Your task to perform on an android device: Open settings Image 0: 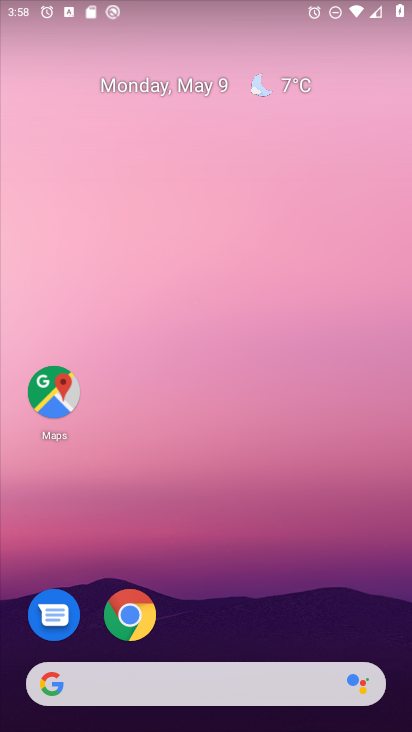
Step 0: drag from (393, 637) to (308, 185)
Your task to perform on an android device: Open settings Image 1: 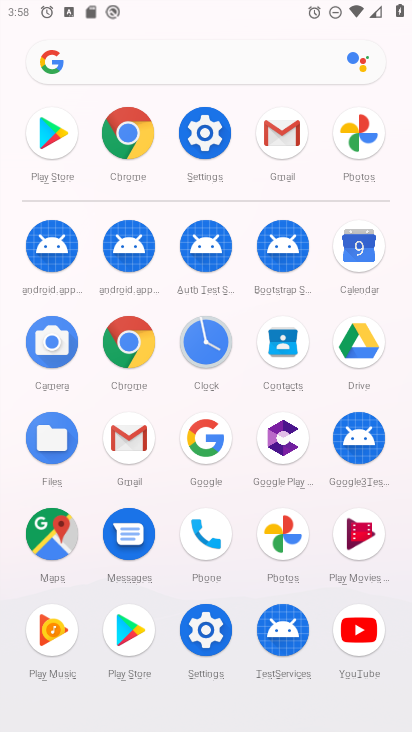
Step 1: click (202, 633)
Your task to perform on an android device: Open settings Image 2: 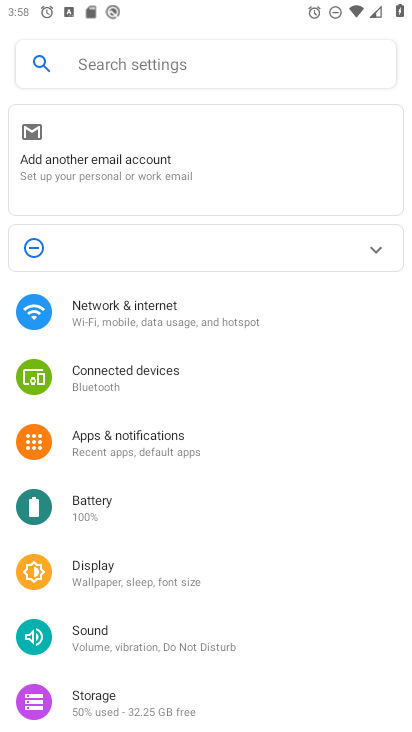
Step 2: task complete